Your task to perform on an android device: What time is it in Berlin? Image 0: 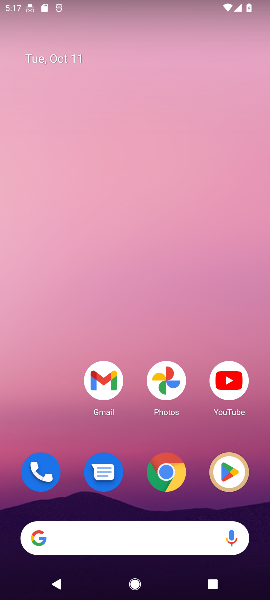
Step 0: click (77, 530)
Your task to perform on an android device: What time is it in Berlin? Image 1: 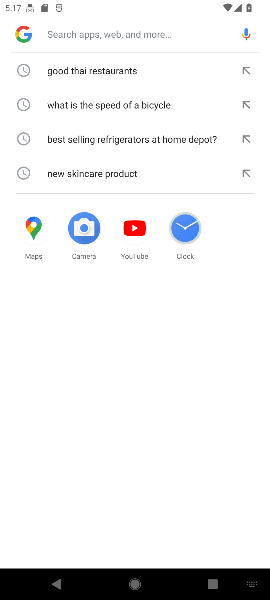
Step 1: type "What time is it in Berlin?"
Your task to perform on an android device: What time is it in Berlin? Image 2: 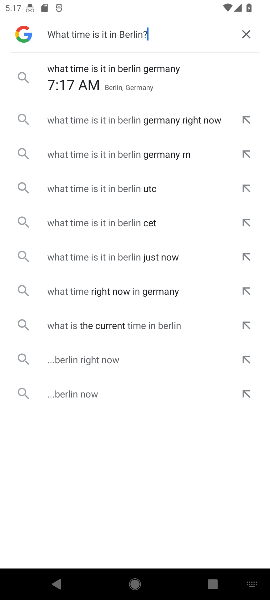
Step 2: click (141, 69)
Your task to perform on an android device: What time is it in Berlin? Image 3: 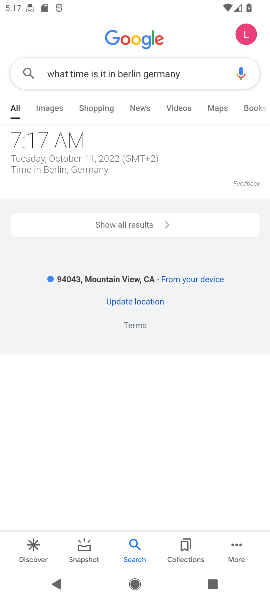
Step 3: task complete